Your task to perform on an android device: Go to Google maps Image 0: 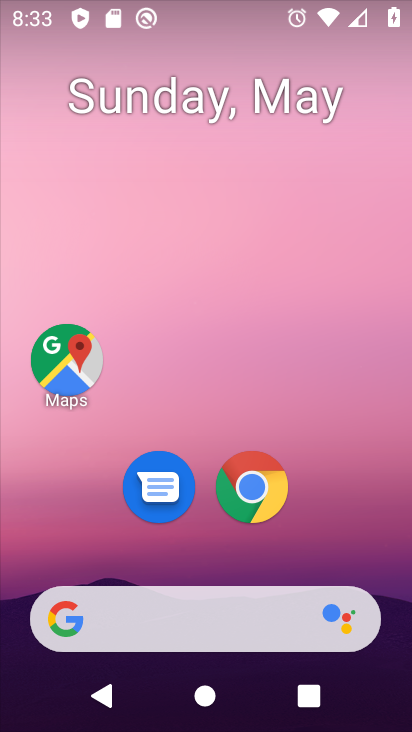
Step 0: click (53, 383)
Your task to perform on an android device: Go to Google maps Image 1: 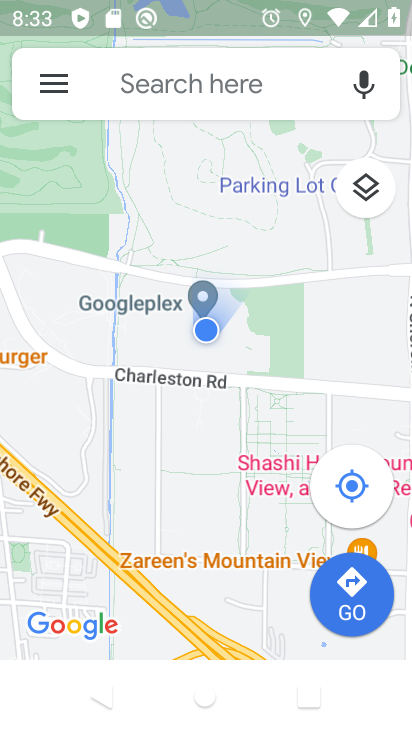
Step 1: task complete